Your task to perform on an android device: Search for "acer nitro" on newegg, select the first entry, and add it to the cart. Image 0: 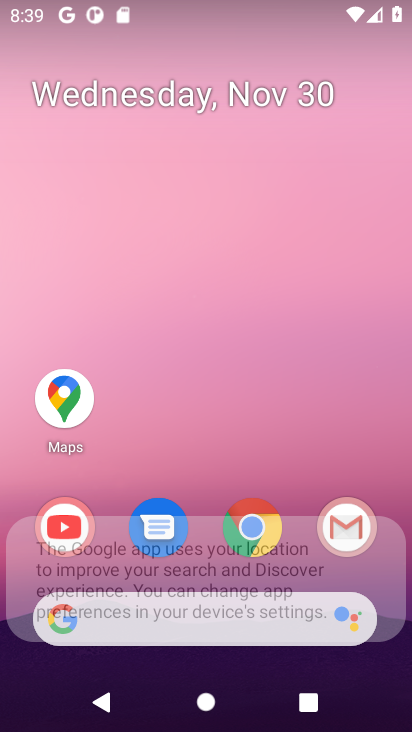
Step 0: click (252, 528)
Your task to perform on an android device: Search for "acer nitro" on newegg, select the first entry, and add it to the cart. Image 1: 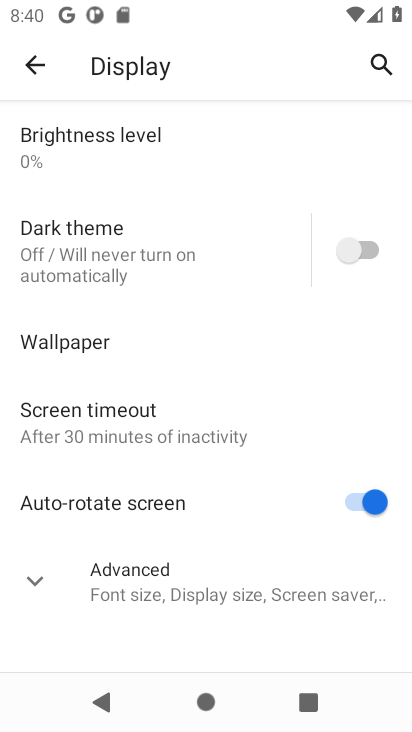
Step 1: press home button
Your task to perform on an android device: Search for "acer nitro" on newegg, select the first entry, and add it to the cart. Image 2: 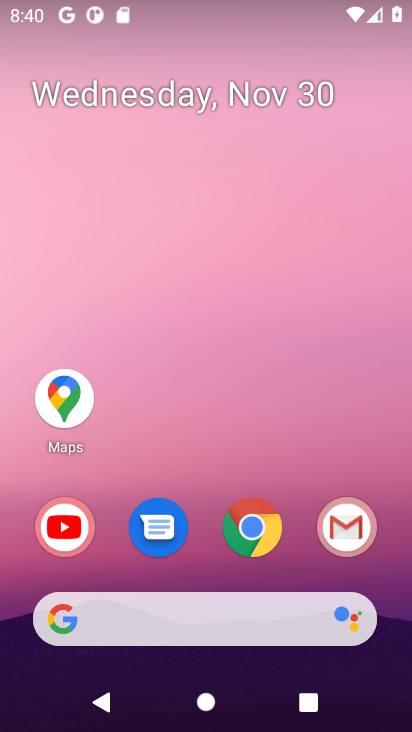
Step 2: click (263, 514)
Your task to perform on an android device: Search for "acer nitro" on newegg, select the first entry, and add it to the cart. Image 3: 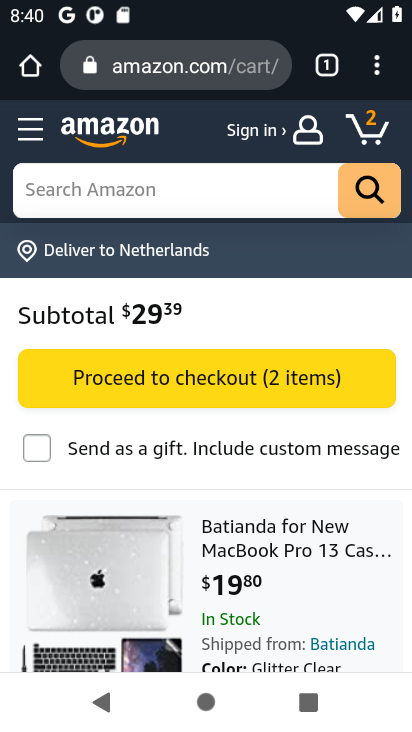
Step 3: click (210, 63)
Your task to perform on an android device: Search for "acer nitro" on newegg, select the first entry, and add it to the cart. Image 4: 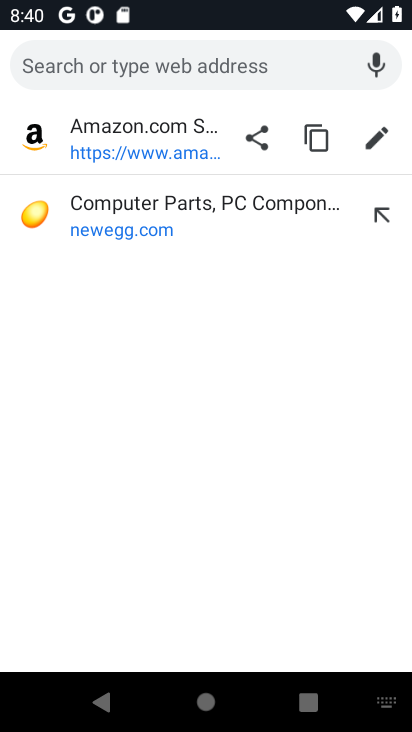
Step 4: type "newegg"
Your task to perform on an android device: Search for "acer nitro" on newegg, select the first entry, and add it to the cart. Image 5: 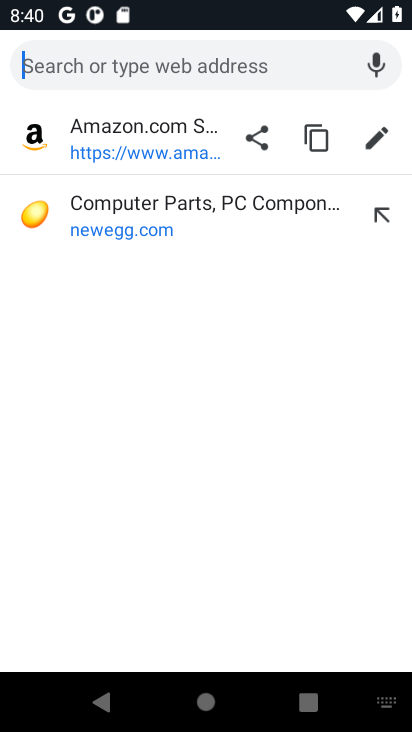
Step 5: click (210, 203)
Your task to perform on an android device: Search for "acer nitro" on newegg, select the first entry, and add it to the cart. Image 6: 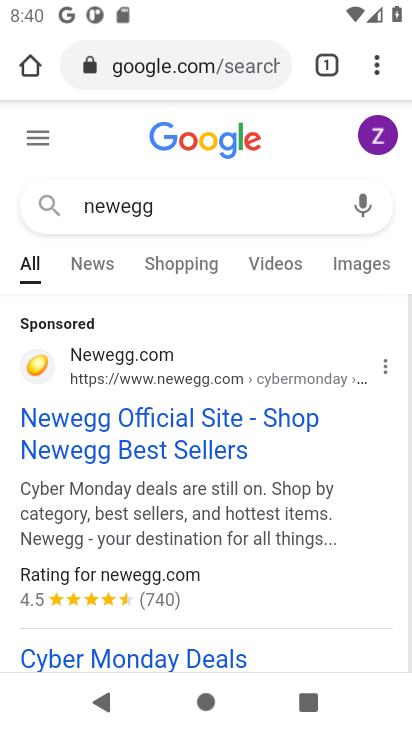
Step 6: click (149, 379)
Your task to perform on an android device: Search for "acer nitro" on newegg, select the first entry, and add it to the cart. Image 7: 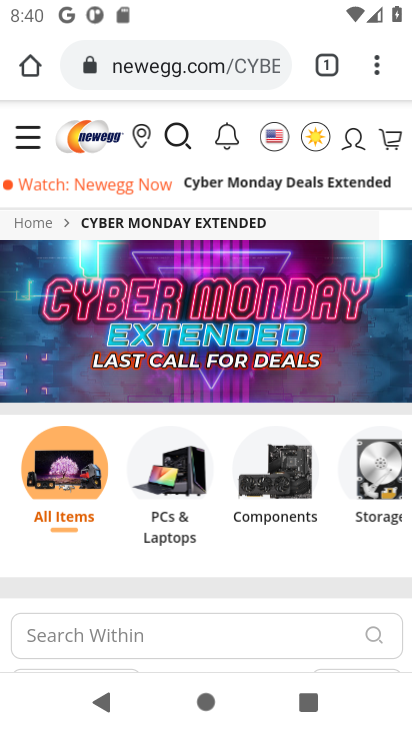
Step 7: click (187, 138)
Your task to perform on an android device: Search for "acer nitro" on newegg, select the first entry, and add it to the cart. Image 8: 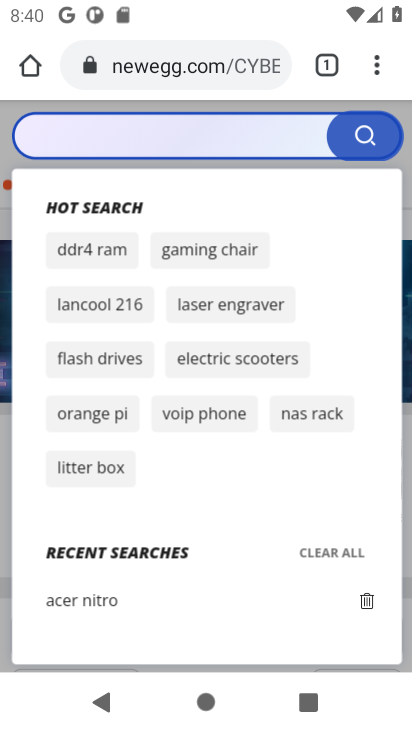
Step 8: click (187, 138)
Your task to perform on an android device: Search for "acer nitro" on newegg, select the first entry, and add it to the cart. Image 9: 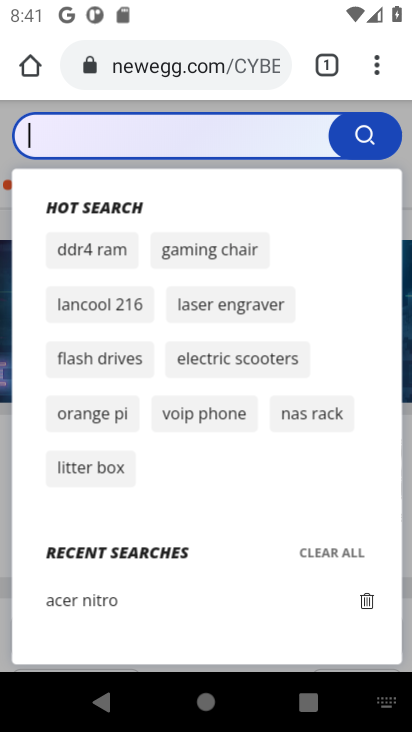
Step 9: type "acer nitro"
Your task to perform on an android device: Search for "acer nitro" on newegg, select the first entry, and add it to the cart. Image 10: 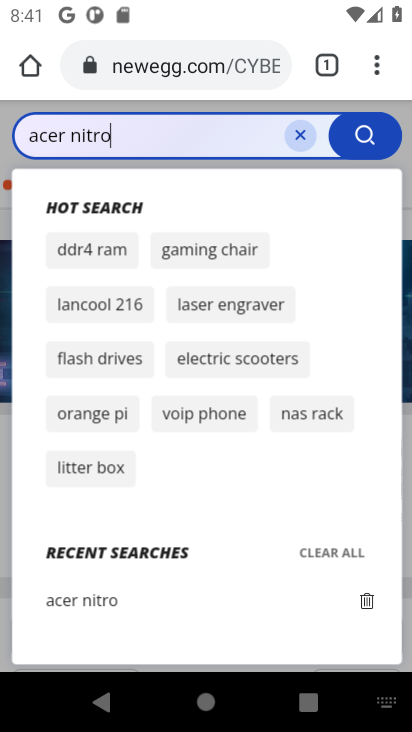
Step 10: press enter
Your task to perform on an android device: Search for "acer nitro" on newegg, select the first entry, and add it to the cart. Image 11: 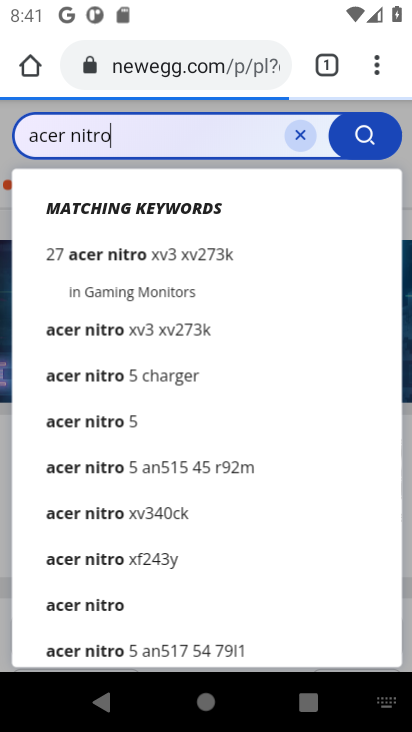
Step 11: click (194, 127)
Your task to perform on an android device: Search for "acer nitro" on newegg, select the first entry, and add it to the cart. Image 12: 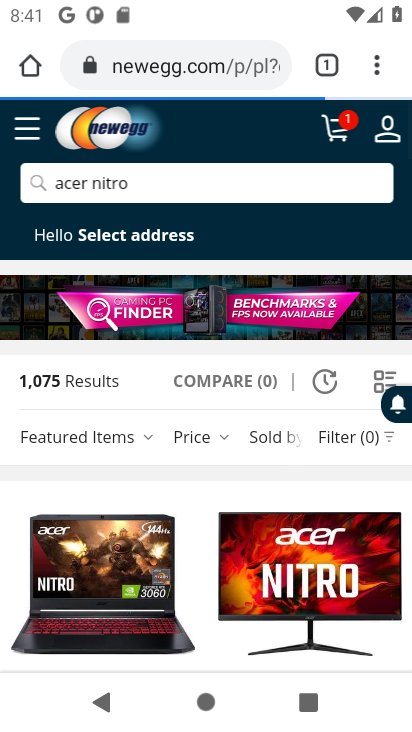
Step 12: click (104, 601)
Your task to perform on an android device: Search for "acer nitro" on newegg, select the first entry, and add it to the cart. Image 13: 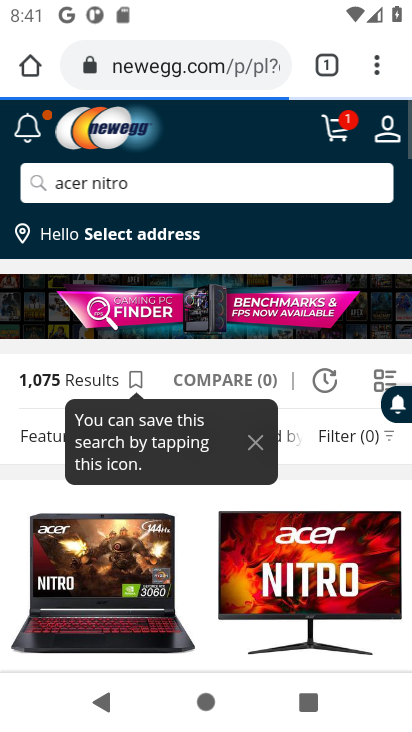
Step 13: drag from (188, 483) to (260, 210)
Your task to perform on an android device: Search for "acer nitro" on newegg, select the first entry, and add it to the cart. Image 14: 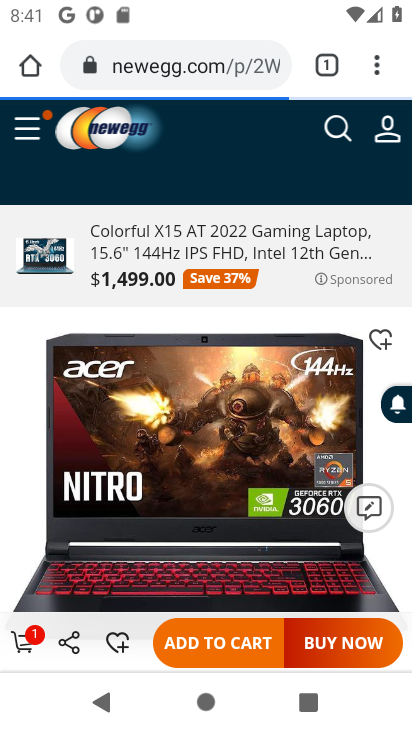
Step 14: drag from (245, 523) to (360, 80)
Your task to perform on an android device: Search for "acer nitro" on newegg, select the first entry, and add it to the cart. Image 15: 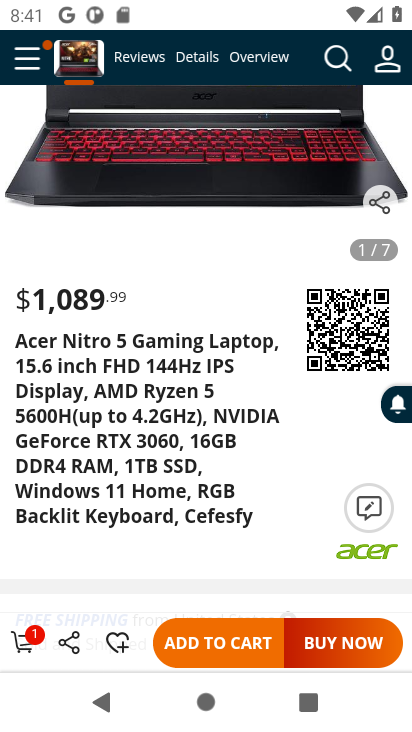
Step 15: click (194, 646)
Your task to perform on an android device: Search for "acer nitro" on newegg, select the first entry, and add it to the cart. Image 16: 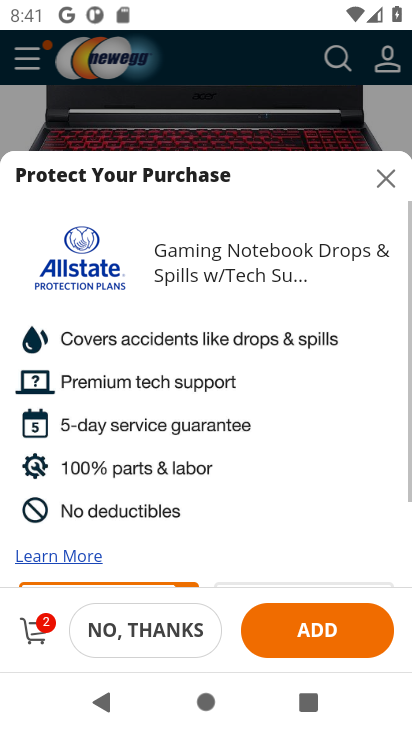
Step 16: task complete